Your task to perform on an android device: Search for Italian restaurants on Maps Image 0: 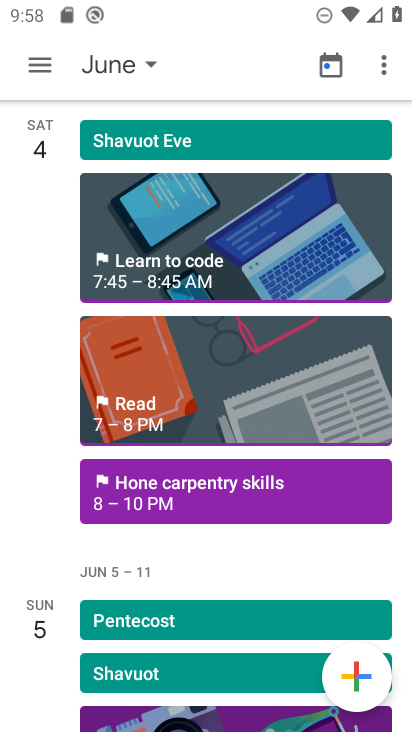
Step 0: press home button
Your task to perform on an android device: Search for Italian restaurants on Maps Image 1: 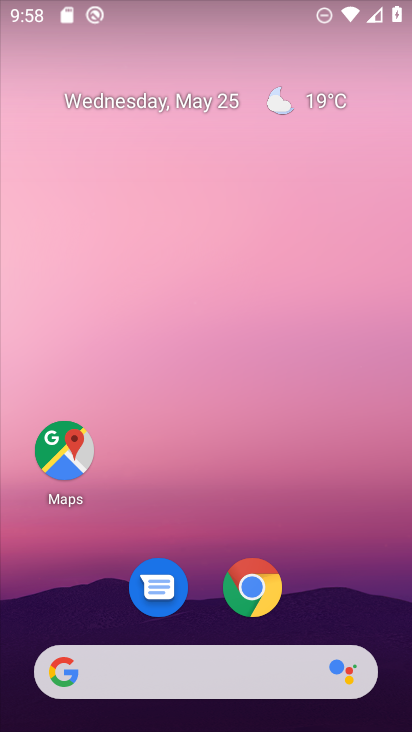
Step 1: click (63, 449)
Your task to perform on an android device: Search for Italian restaurants on Maps Image 2: 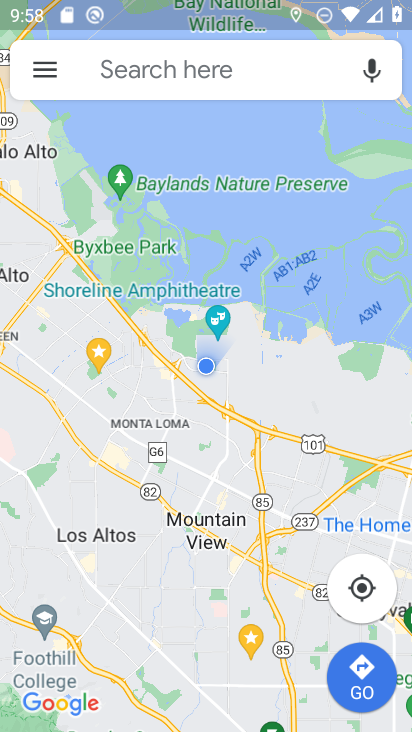
Step 2: click (154, 61)
Your task to perform on an android device: Search for Italian restaurants on Maps Image 3: 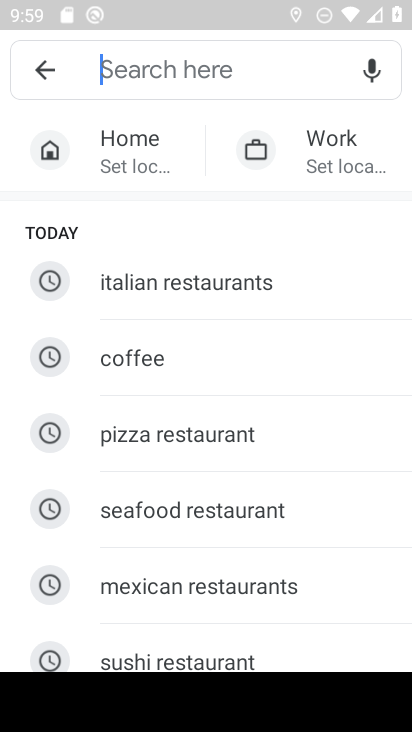
Step 3: type "italian restaurants"
Your task to perform on an android device: Search for Italian restaurants on Maps Image 4: 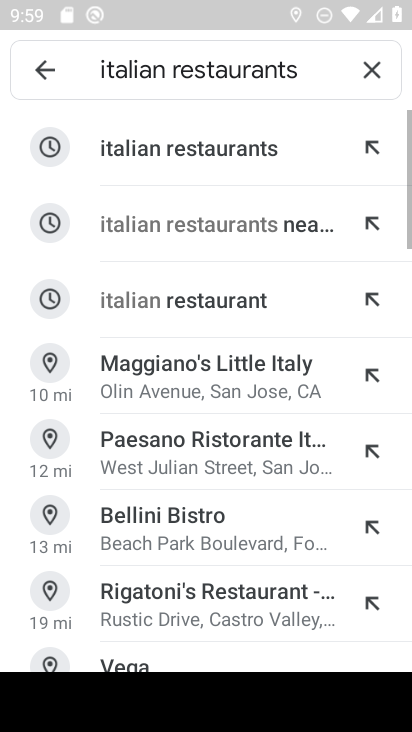
Step 4: click (196, 145)
Your task to perform on an android device: Search for Italian restaurants on Maps Image 5: 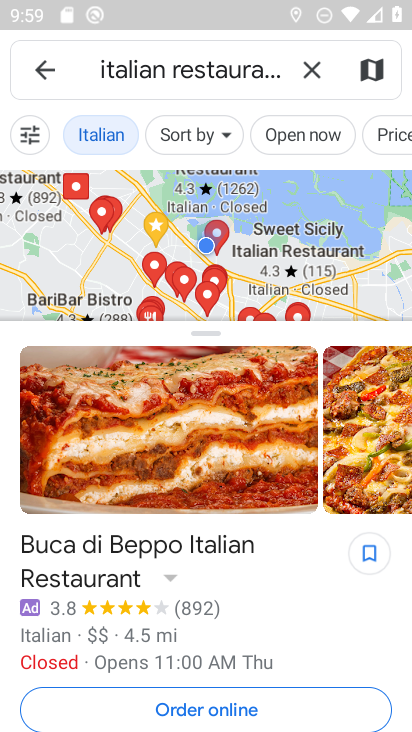
Step 5: task complete